Your task to perform on an android device: add a contact in the contacts app Image 0: 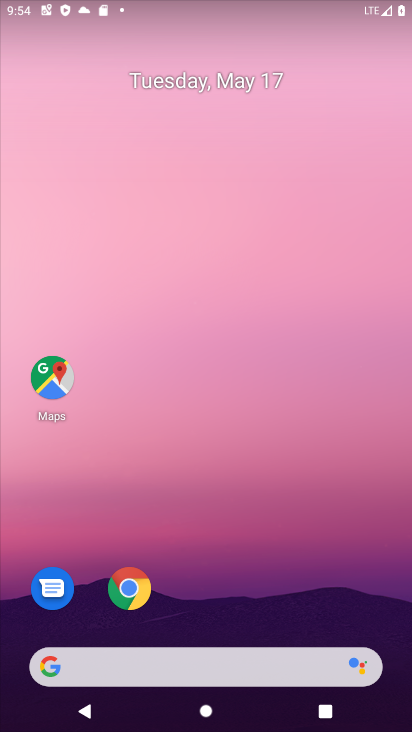
Step 0: drag from (190, 632) to (236, 28)
Your task to perform on an android device: add a contact in the contacts app Image 1: 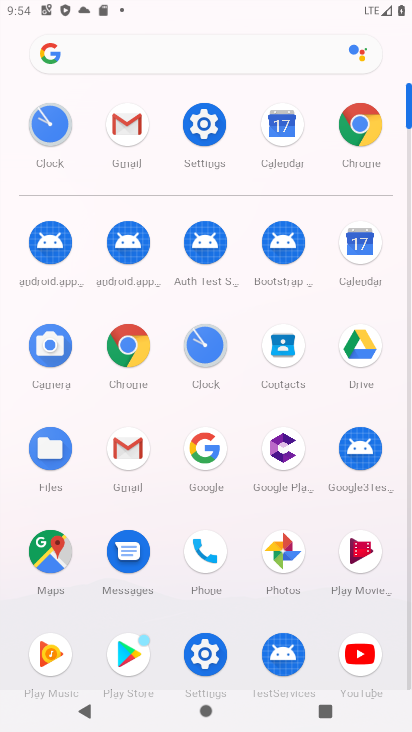
Step 1: click (210, 542)
Your task to perform on an android device: add a contact in the contacts app Image 2: 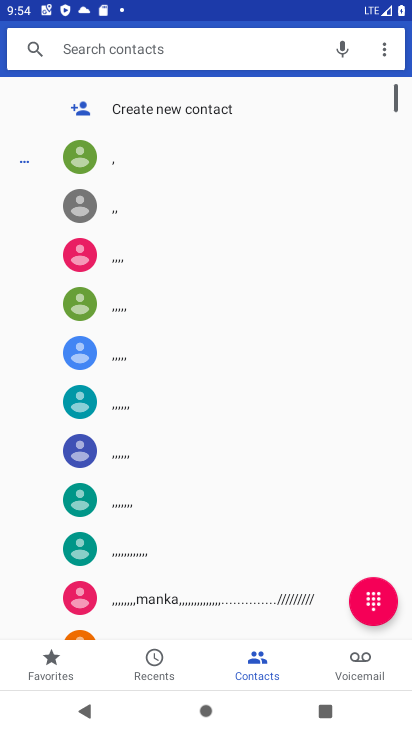
Step 2: click (120, 114)
Your task to perform on an android device: add a contact in the contacts app Image 3: 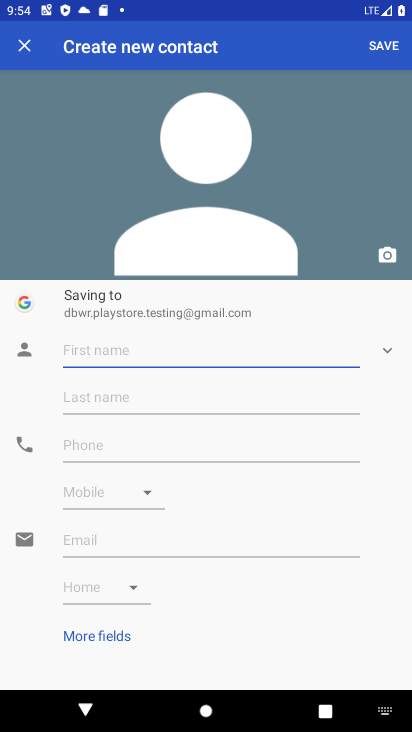
Step 3: type "guy"
Your task to perform on an android device: add a contact in the contacts app Image 4: 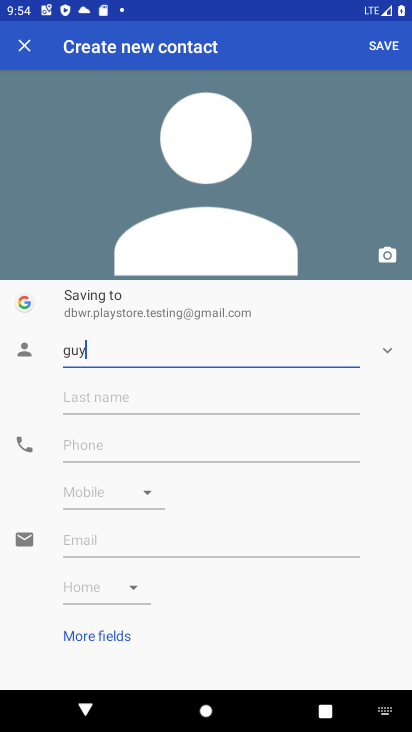
Step 4: click (226, 457)
Your task to perform on an android device: add a contact in the contacts app Image 5: 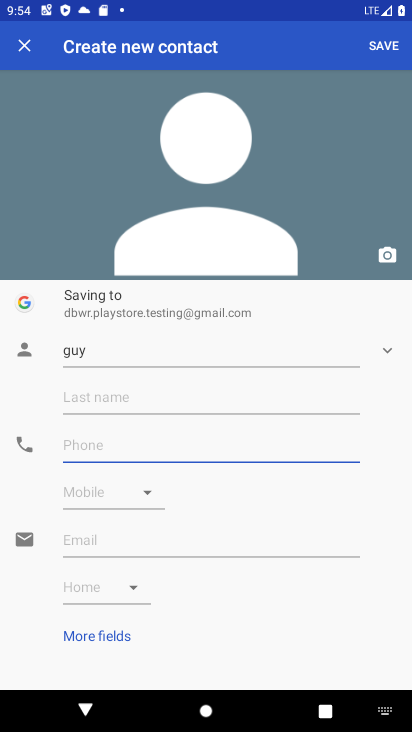
Step 5: type "7009889"
Your task to perform on an android device: add a contact in the contacts app Image 6: 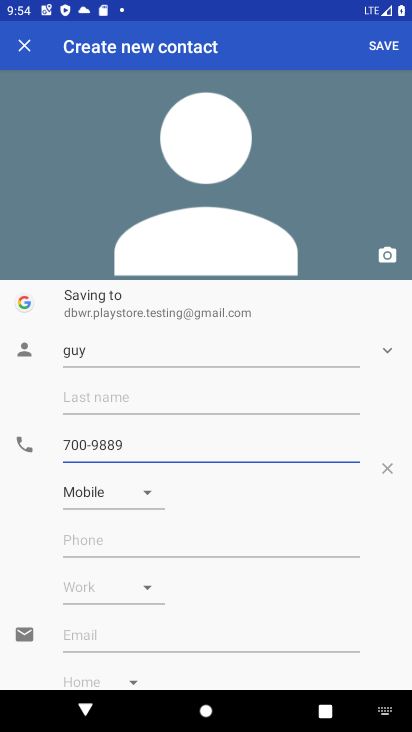
Step 6: click (394, 42)
Your task to perform on an android device: add a contact in the contacts app Image 7: 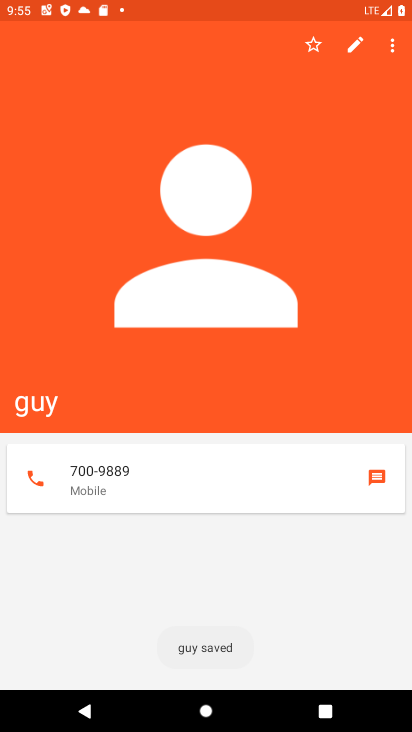
Step 7: task complete